Your task to perform on an android device: turn notification dots off Image 0: 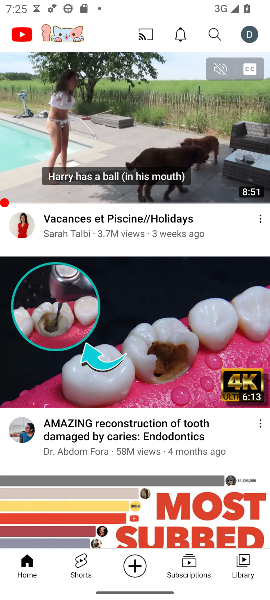
Step 0: press home button
Your task to perform on an android device: turn notification dots off Image 1: 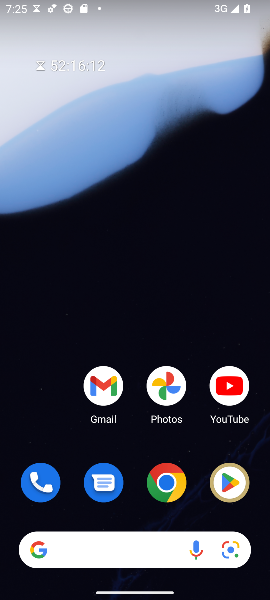
Step 1: drag from (109, 401) to (156, 10)
Your task to perform on an android device: turn notification dots off Image 2: 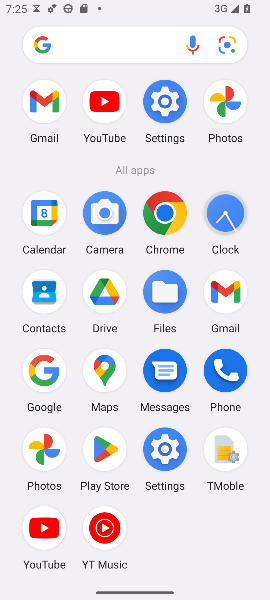
Step 2: click (164, 90)
Your task to perform on an android device: turn notification dots off Image 3: 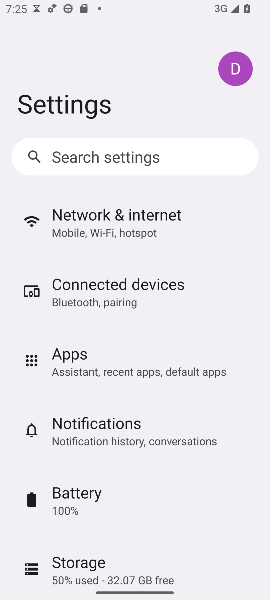
Step 3: click (83, 454)
Your task to perform on an android device: turn notification dots off Image 4: 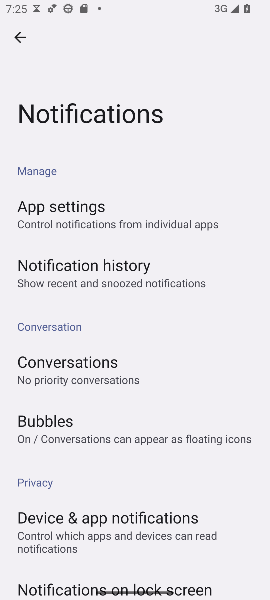
Step 4: drag from (107, 460) to (97, 140)
Your task to perform on an android device: turn notification dots off Image 5: 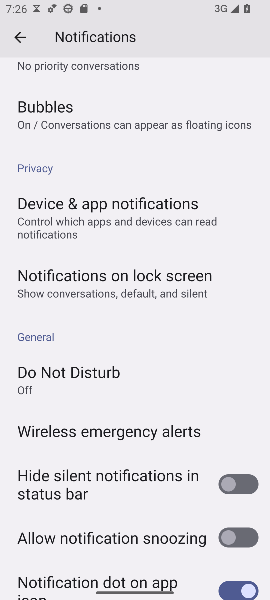
Step 5: drag from (76, 502) to (74, 275)
Your task to perform on an android device: turn notification dots off Image 6: 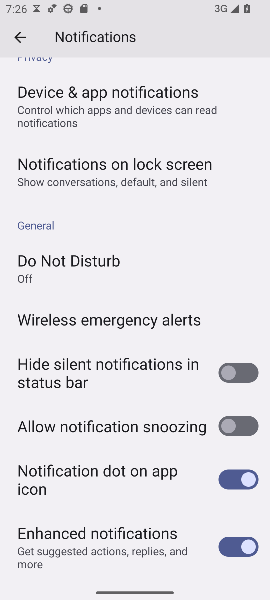
Step 6: click (233, 487)
Your task to perform on an android device: turn notification dots off Image 7: 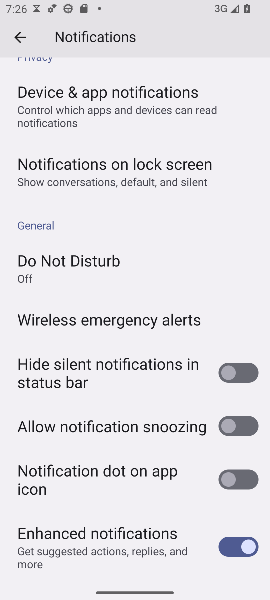
Step 7: task complete